Your task to perform on an android device: What's the weather? Image 0: 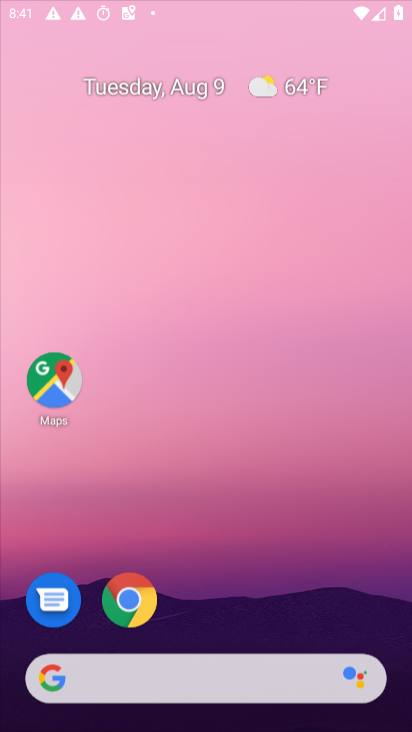
Step 0: press home button
Your task to perform on an android device: What's the weather? Image 1: 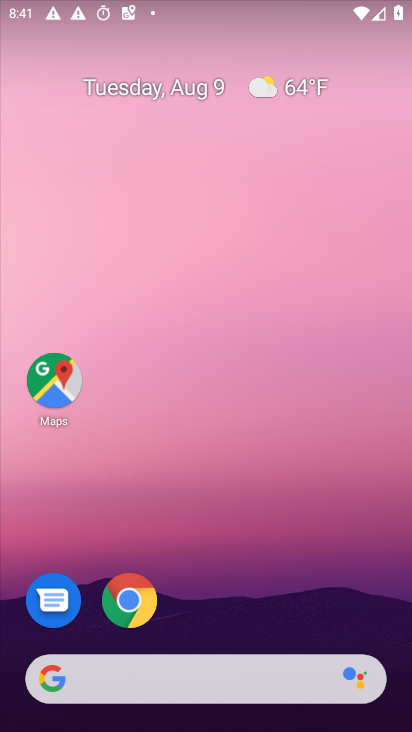
Step 1: click (52, 681)
Your task to perform on an android device: What's the weather? Image 2: 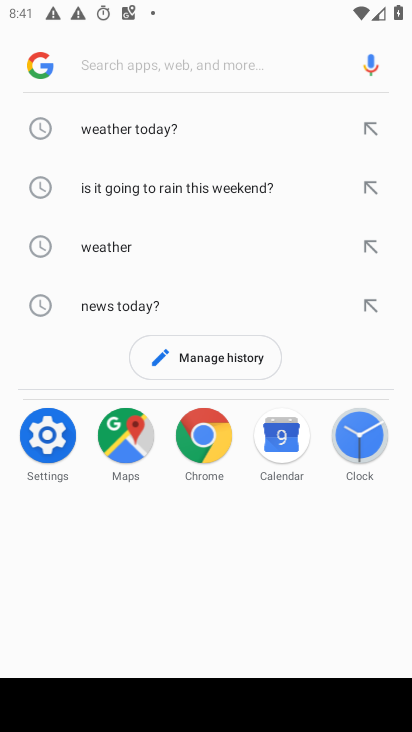
Step 2: click (117, 245)
Your task to perform on an android device: What's the weather? Image 3: 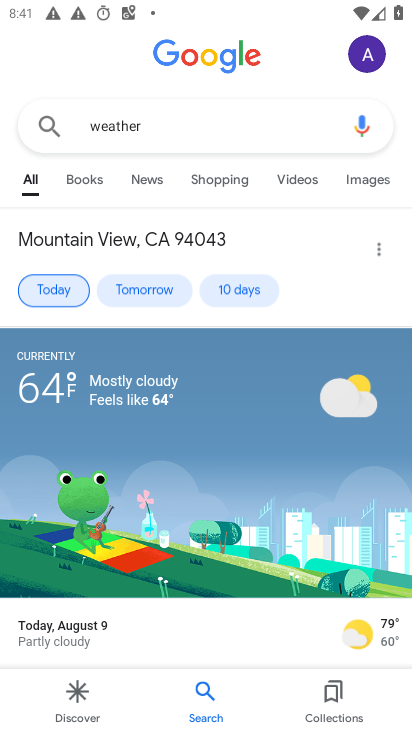
Step 3: task complete